Your task to perform on an android device: Open the web browser Image 0: 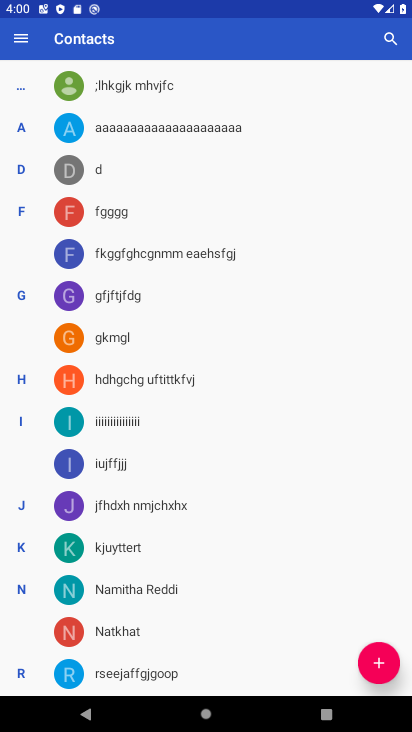
Step 0: press home button
Your task to perform on an android device: Open the web browser Image 1: 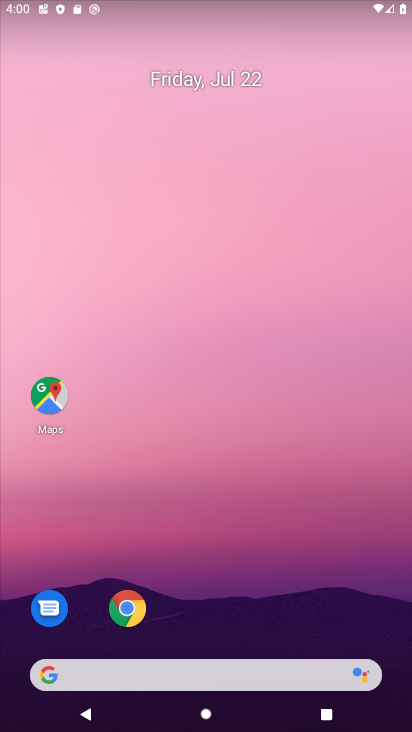
Step 1: click (128, 612)
Your task to perform on an android device: Open the web browser Image 2: 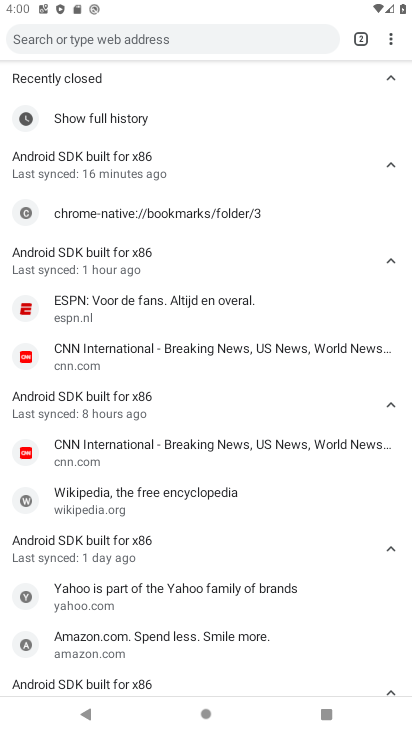
Step 2: task complete